Your task to perform on an android device: Open network settings Image 0: 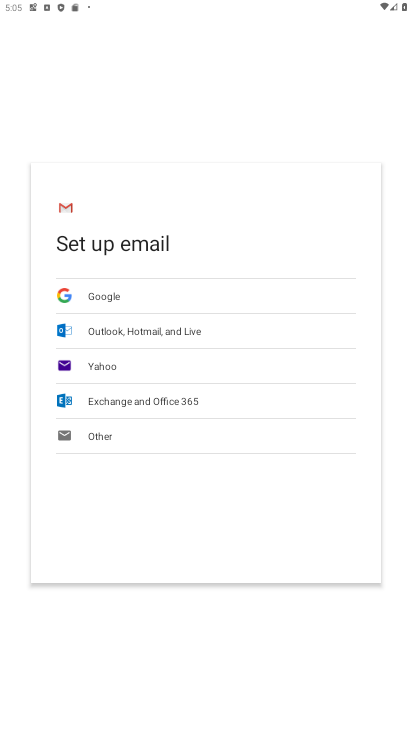
Step 0: drag from (247, 6) to (162, 495)
Your task to perform on an android device: Open network settings Image 1: 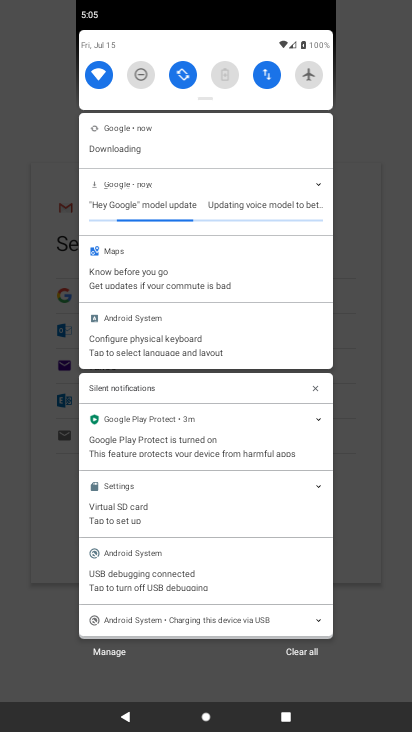
Step 1: click (258, 82)
Your task to perform on an android device: Open network settings Image 2: 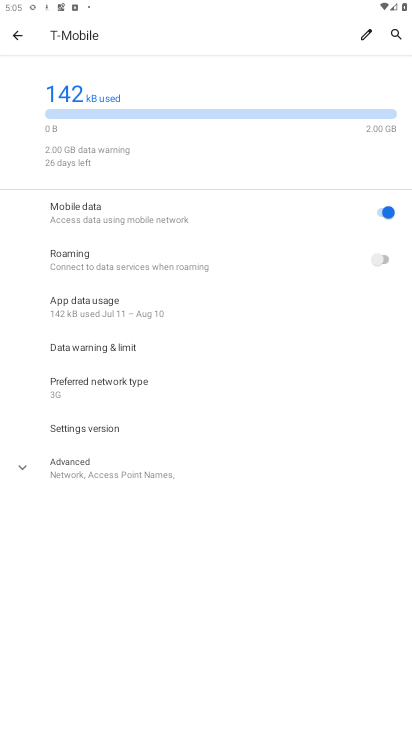
Step 2: task complete